Your task to perform on an android device: Open settings on Google Maps Image 0: 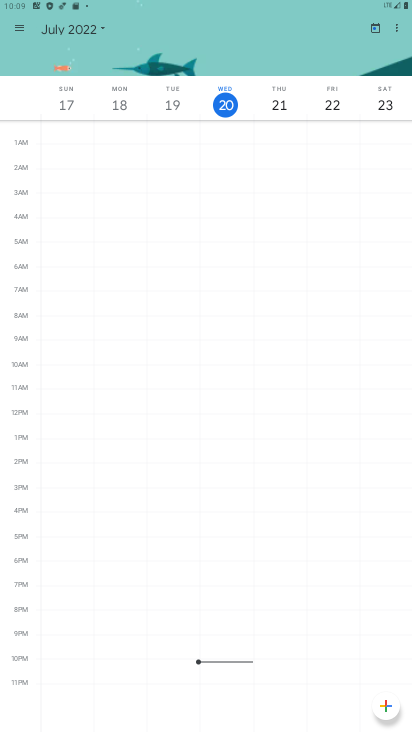
Step 0: press home button
Your task to perform on an android device: Open settings on Google Maps Image 1: 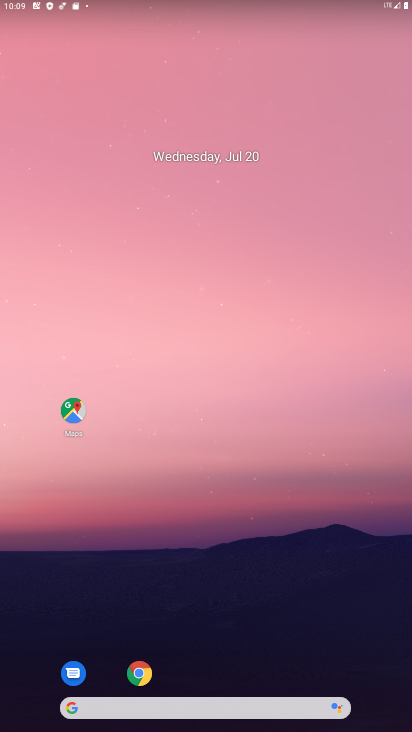
Step 1: click (76, 411)
Your task to perform on an android device: Open settings on Google Maps Image 2: 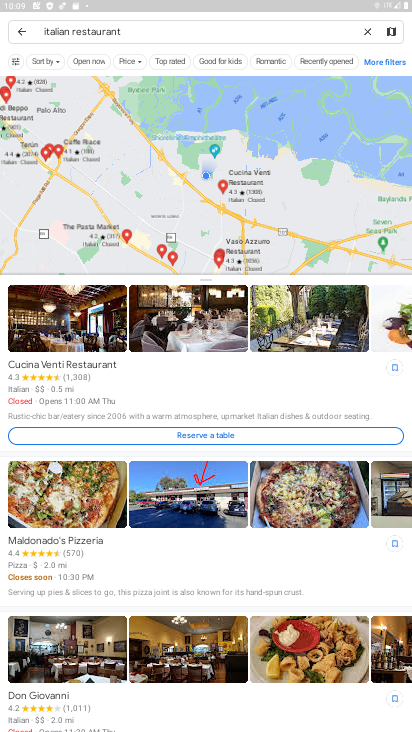
Step 2: press back button
Your task to perform on an android device: Open settings on Google Maps Image 3: 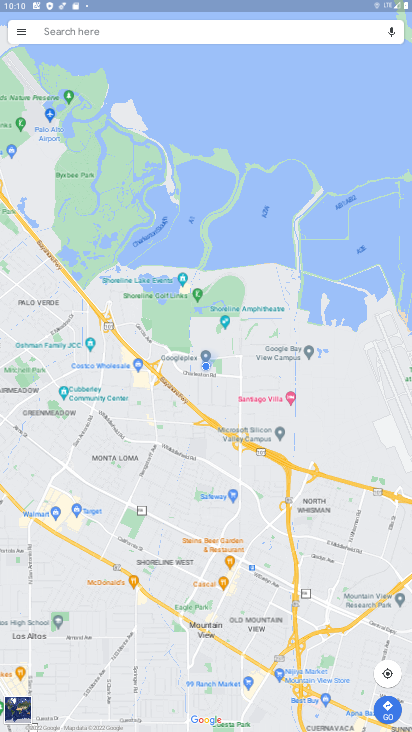
Step 3: click (19, 30)
Your task to perform on an android device: Open settings on Google Maps Image 4: 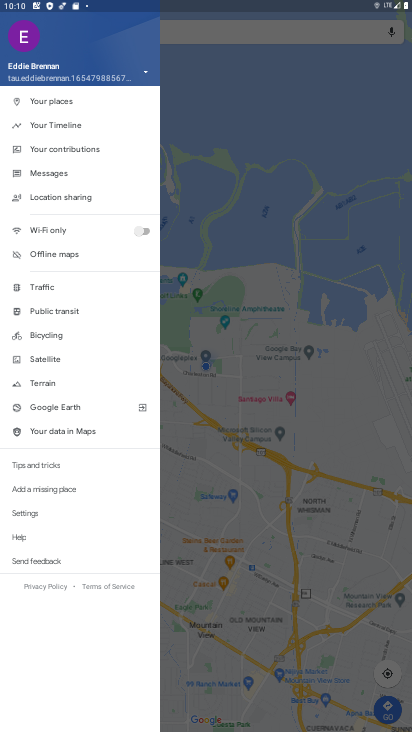
Step 4: click (28, 513)
Your task to perform on an android device: Open settings on Google Maps Image 5: 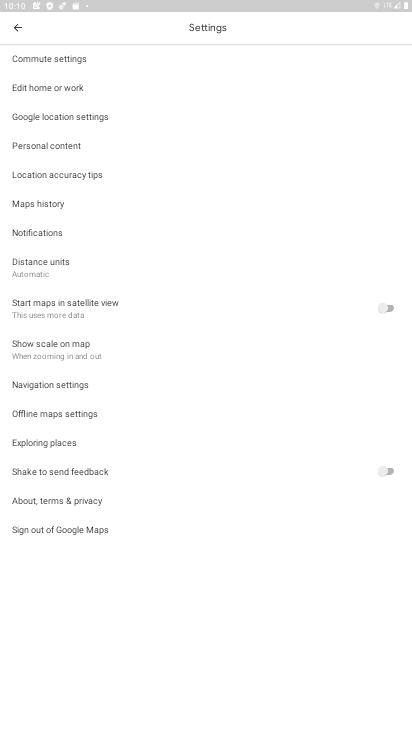
Step 5: task complete